Your task to perform on an android device: Search for "razer blackwidow" on newegg, select the first entry, add it to the cart, then select checkout. Image 0: 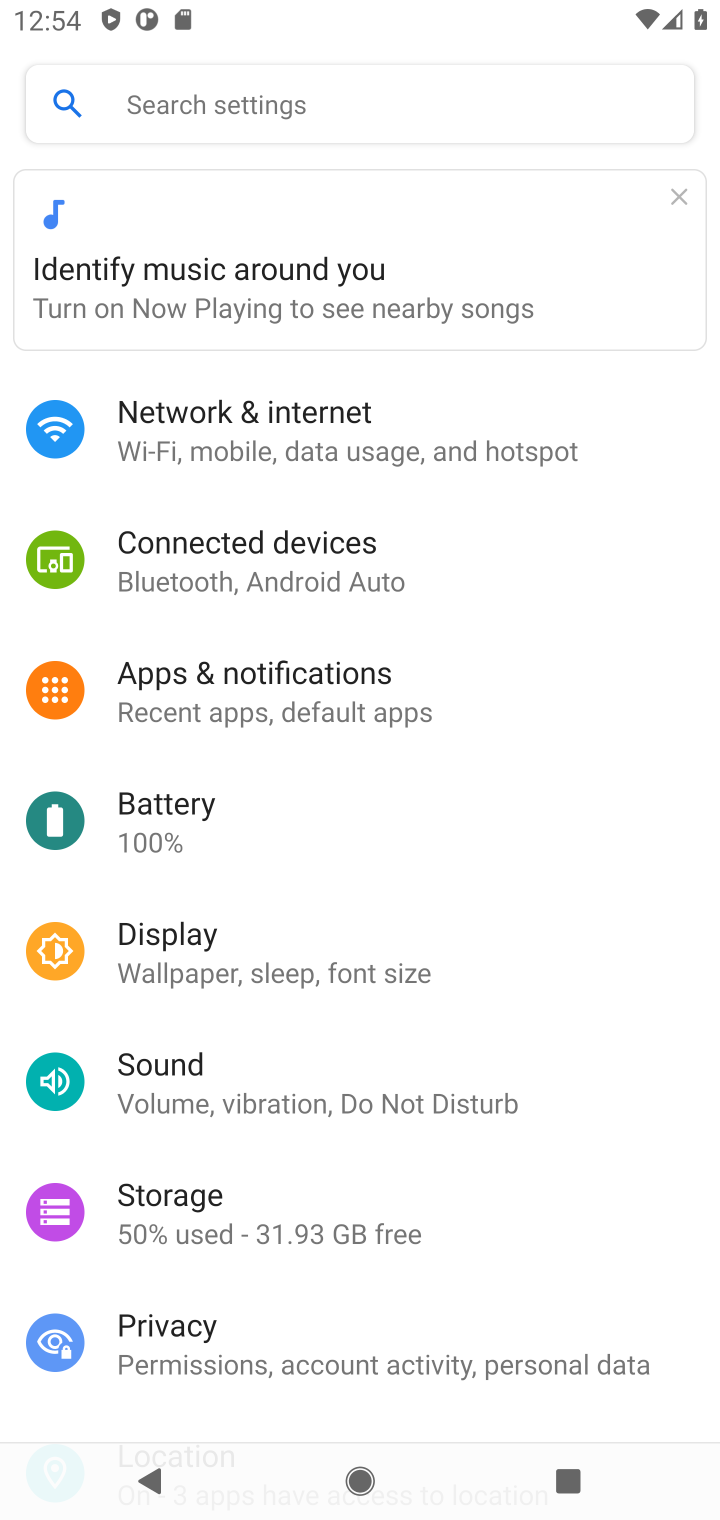
Step 0: press home button
Your task to perform on an android device: Search for "razer blackwidow" on newegg, select the first entry, add it to the cart, then select checkout. Image 1: 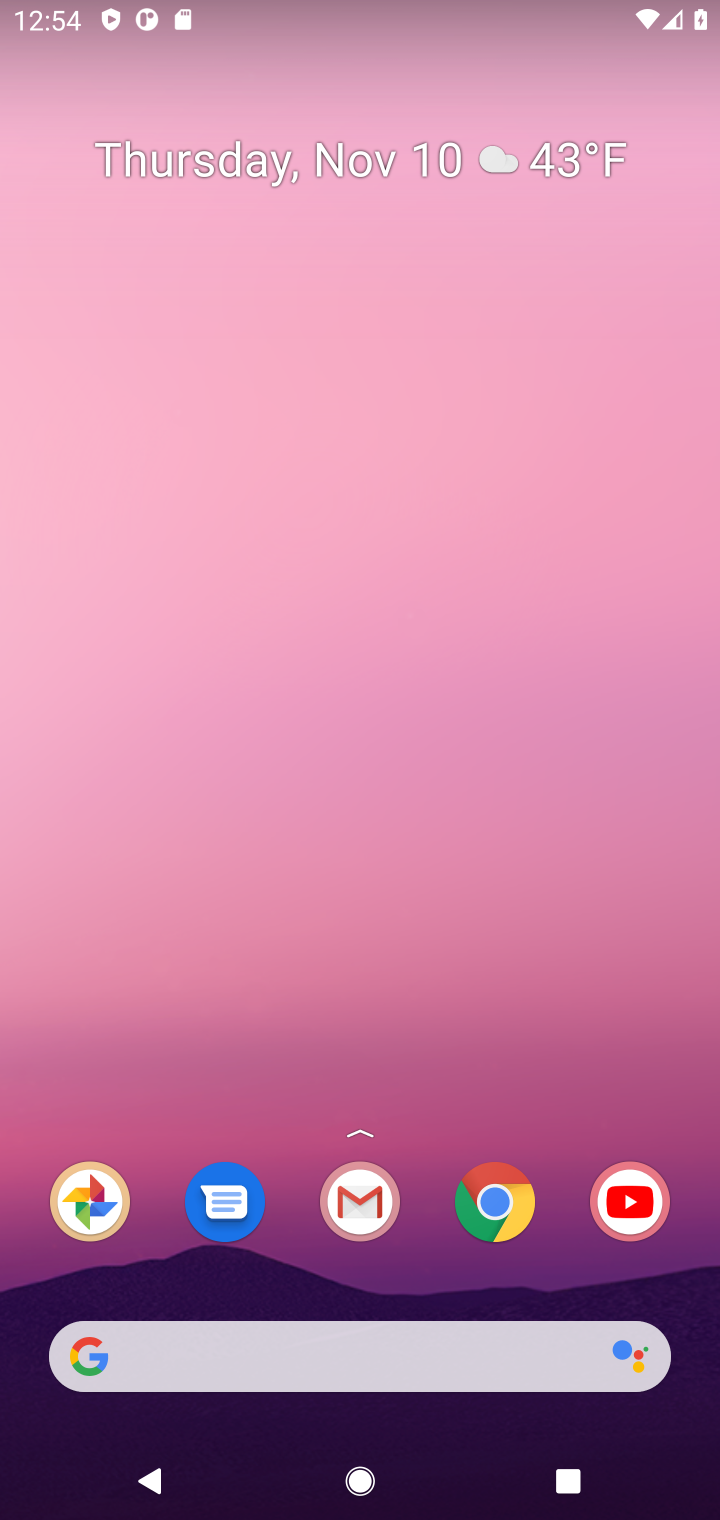
Step 1: click (483, 1220)
Your task to perform on an android device: Search for "razer blackwidow" on newegg, select the first entry, add it to the cart, then select checkout. Image 2: 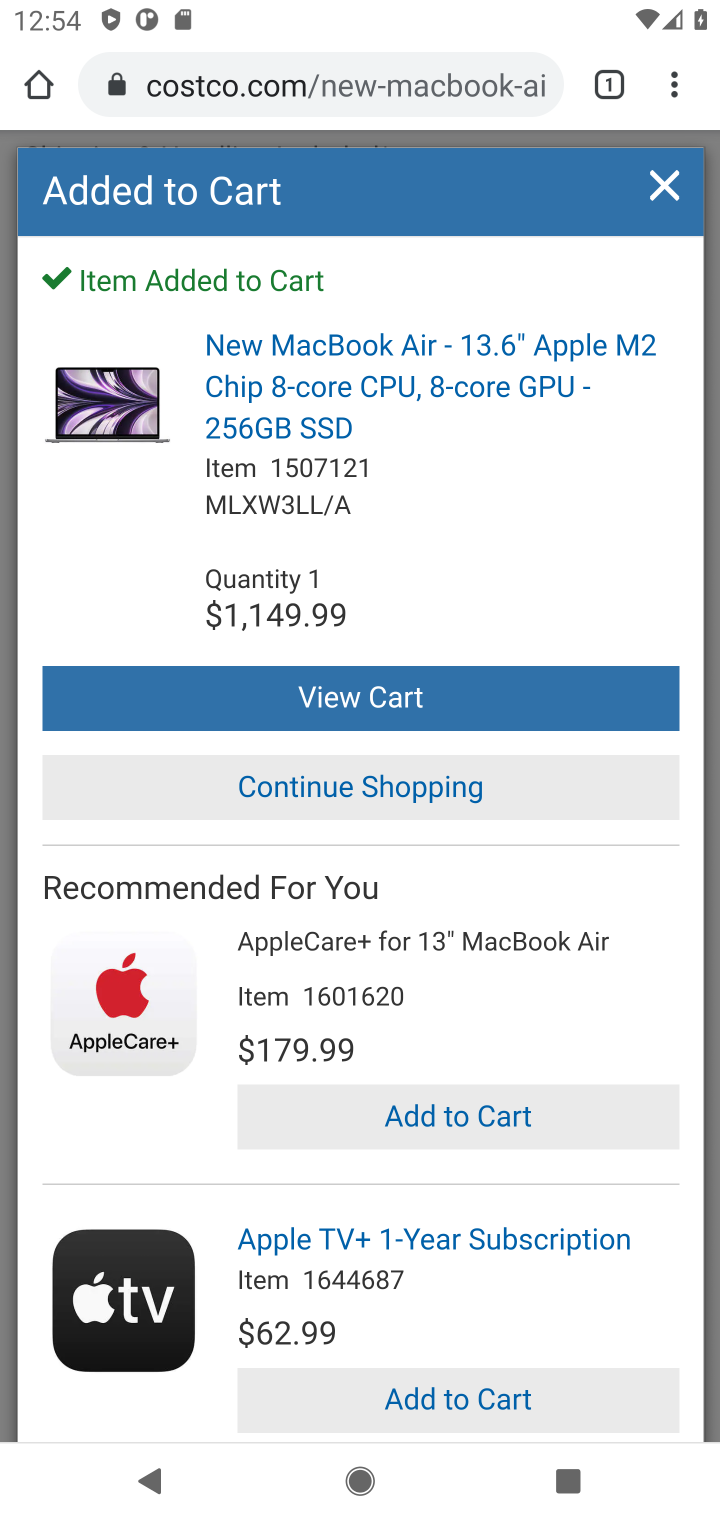
Step 2: click (347, 72)
Your task to perform on an android device: Search for "razer blackwidow" on newegg, select the first entry, add it to the cart, then select checkout. Image 3: 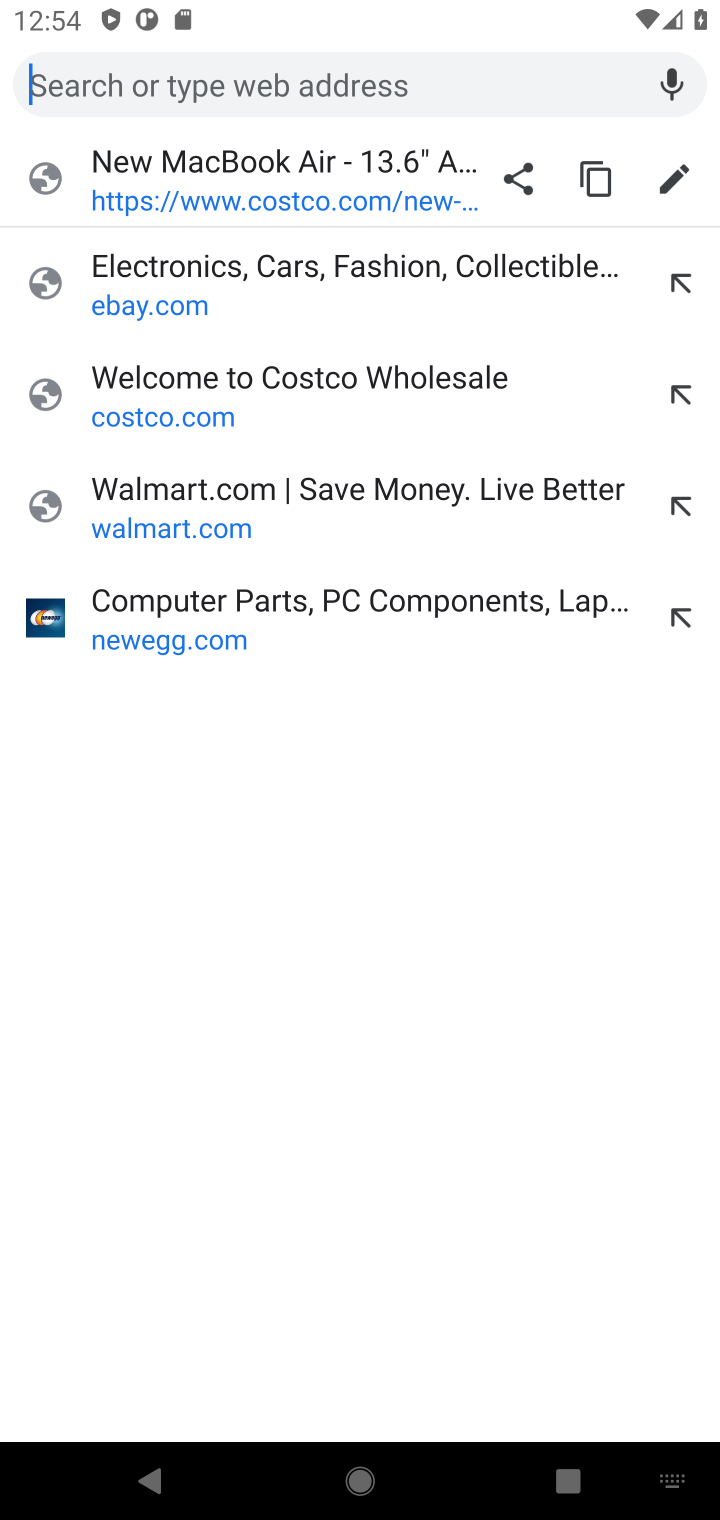
Step 3: click (408, 590)
Your task to perform on an android device: Search for "razer blackwidow" on newegg, select the first entry, add it to the cart, then select checkout. Image 4: 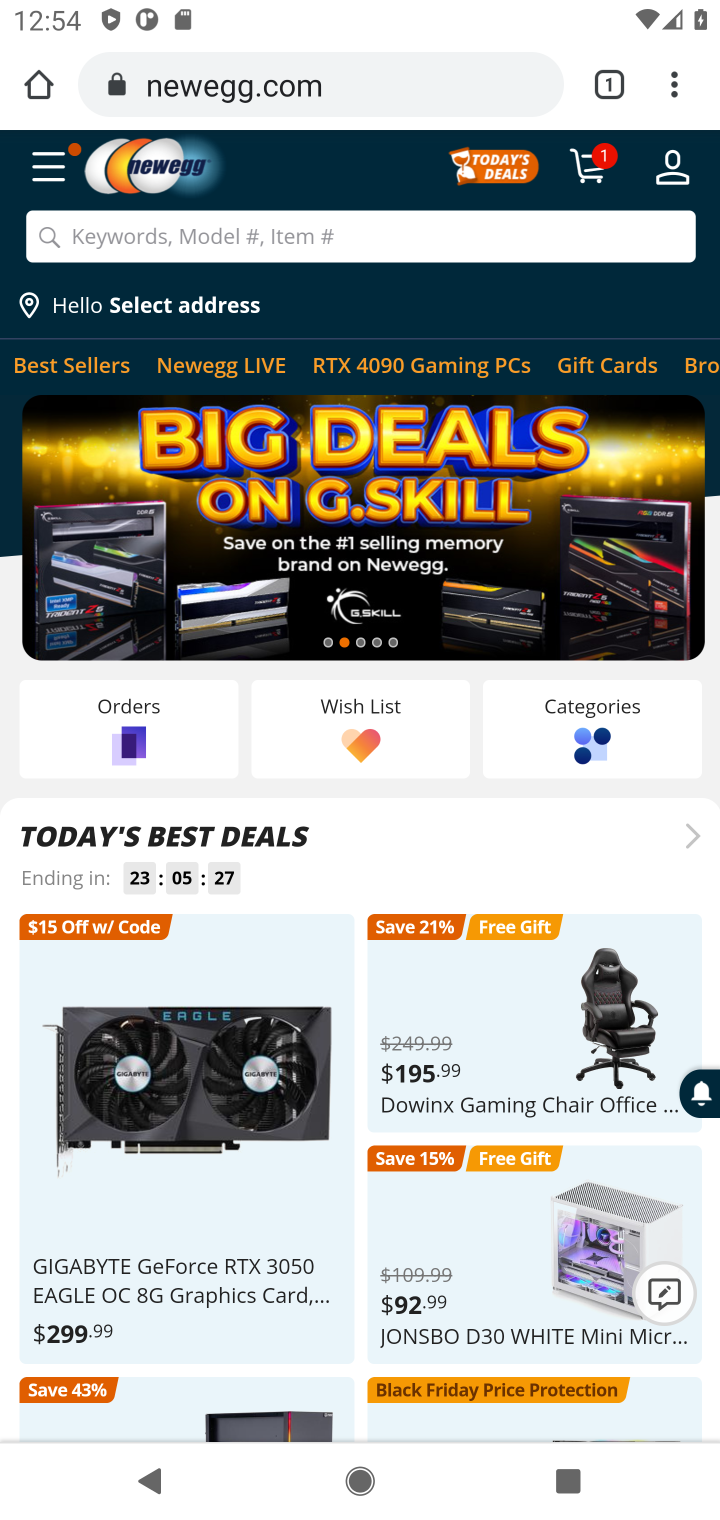
Step 4: click (559, 226)
Your task to perform on an android device: Search for "razer blackwidow" on newegg, select the first entry, add it to the cart, then select checkout. Image 5: 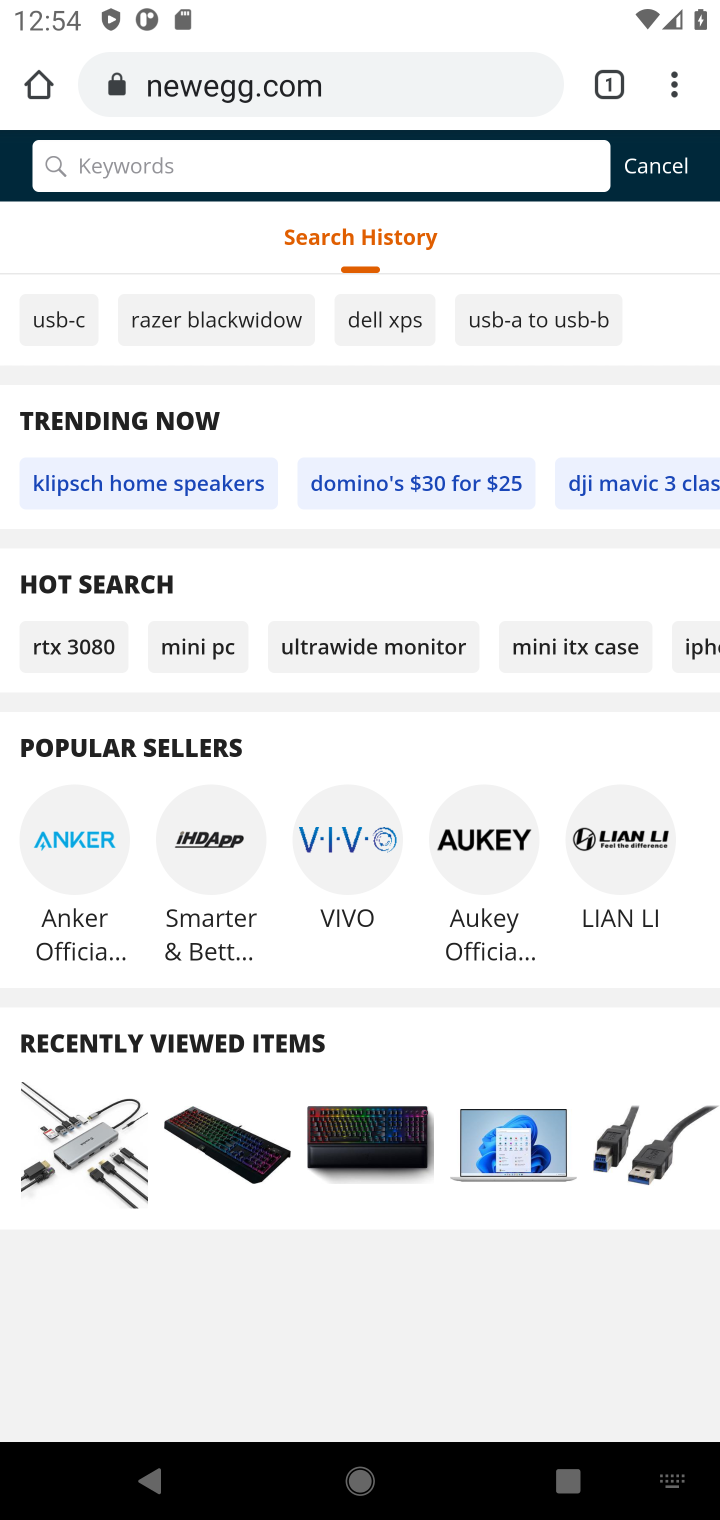
Step 5: type "razer blackwidow"
Your task to perform on an android device: Search for "razer blackwidow" on newegg, select the first entry, add it to the cart, then select checkout. Image 6: 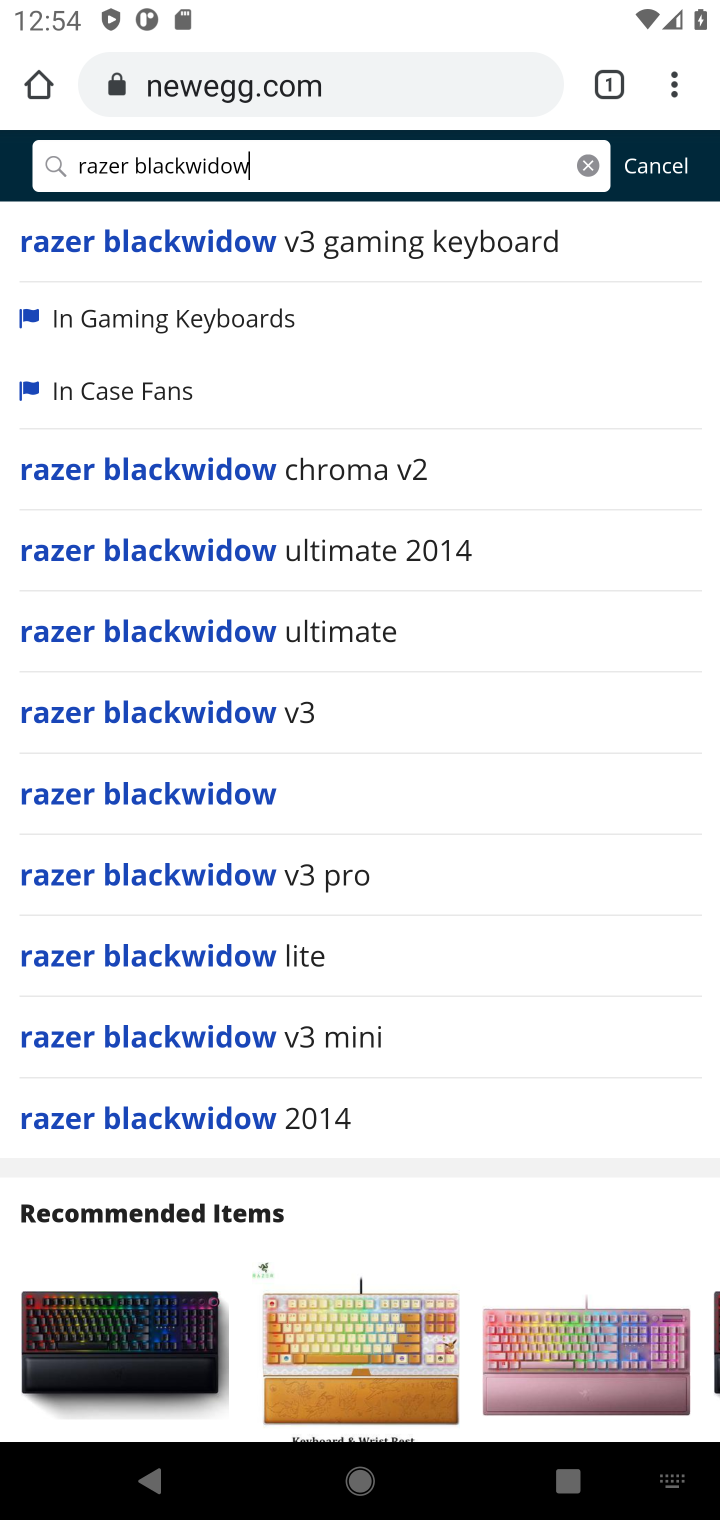
Step 6: click (255, 793)
Your task to perform on an android device: Search for "razer blackwidow" on newegg, select the first entry, add it to the cart, then select checkout. Image 7: 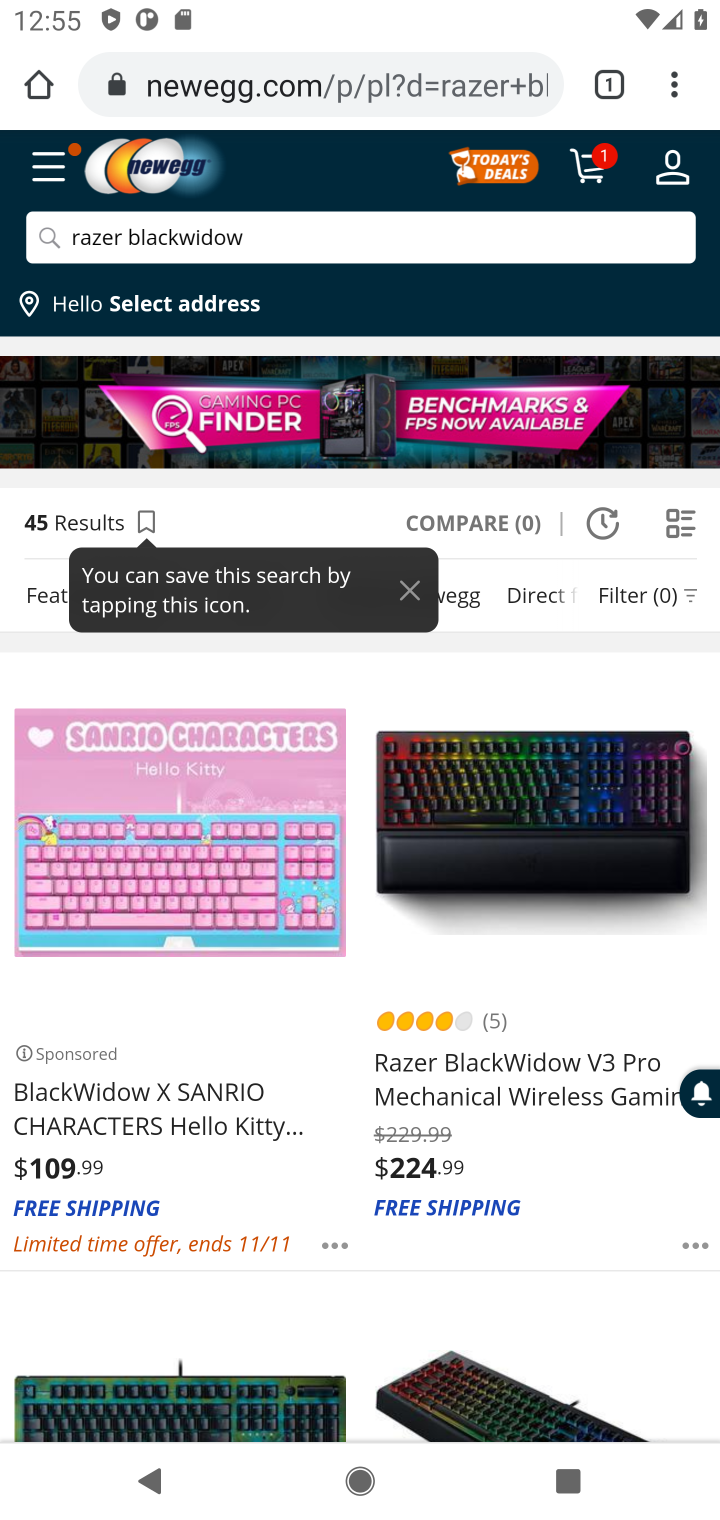
Step 7: click (603, 813)
Your task to perform on an android device: Search for "razer blackwidow" on newegg, select the first entry, add it to the cart, then select checkout. Image 8: 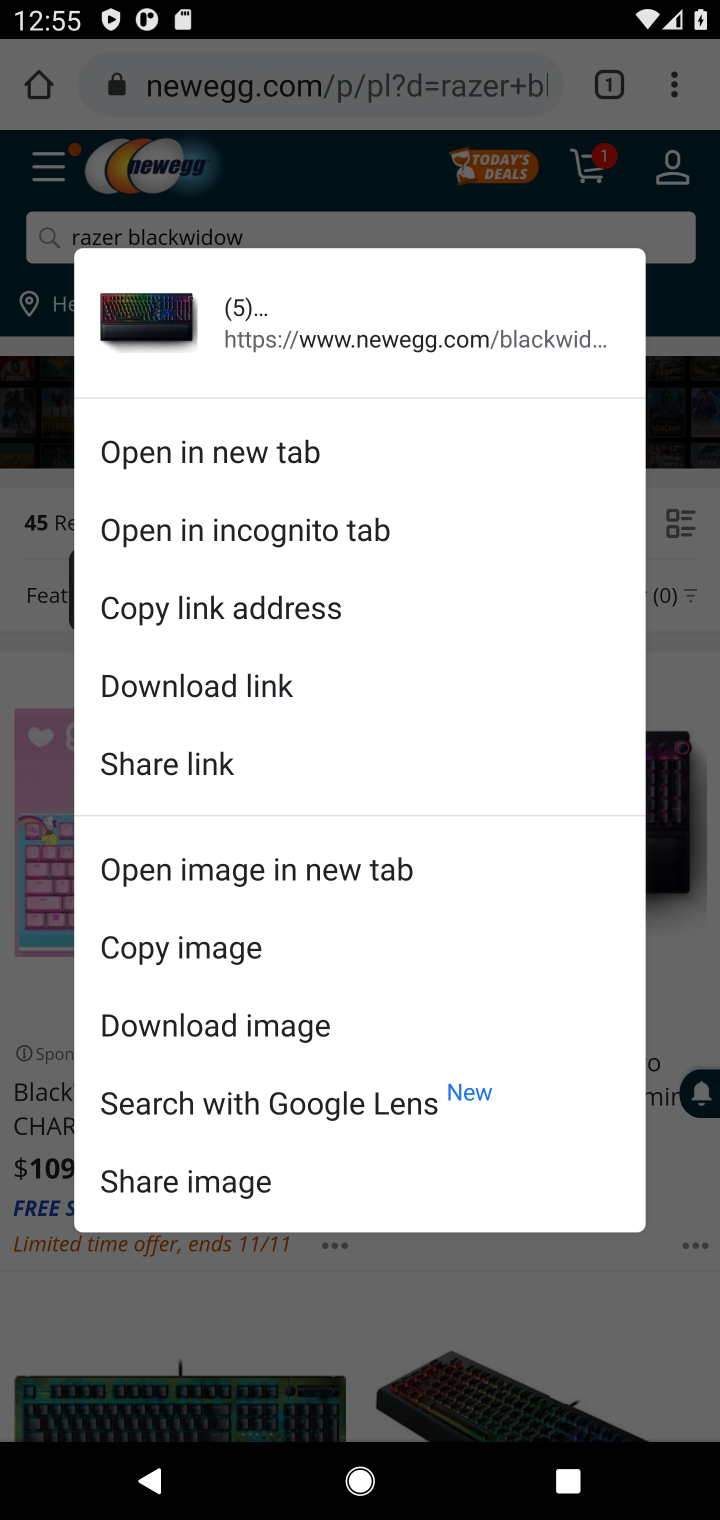
Step 8: click (699, 697)
Your task to perform on an android device: Search for "razer blackwidow" on newegg, select the first entry, add it to the cart, then select checkout. Image 9: 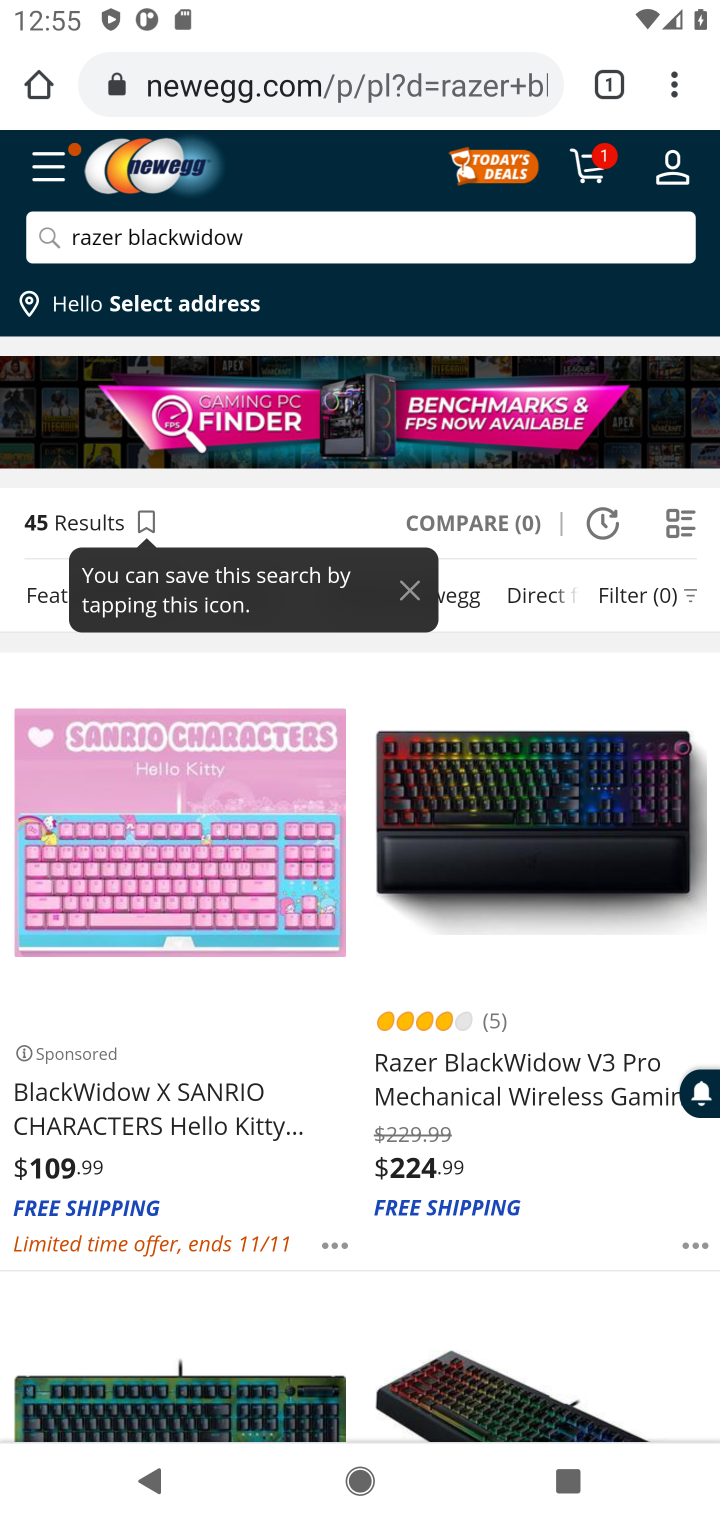
Step 9: click (578, 822)
Your task to perform on an android device: Search for "razer blackwidow" on newegg, select the first entry, add it to the cart, then select checkout. Image 10: 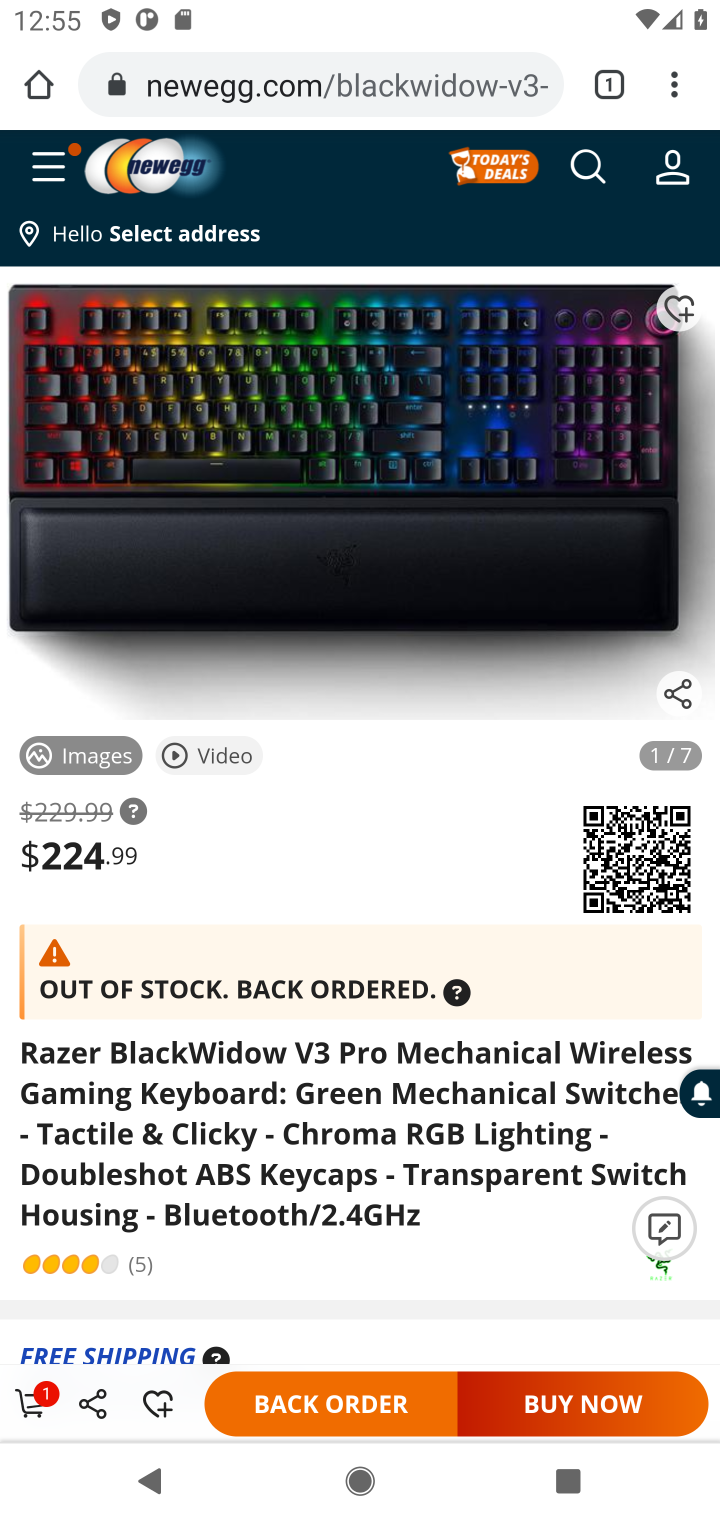
Step 10: click (359, 1405)
Your task to perform on an android device: Search for "razer blackwidow" on newegg, select the first entry, add it to the cart, then select checkout. Image 11: 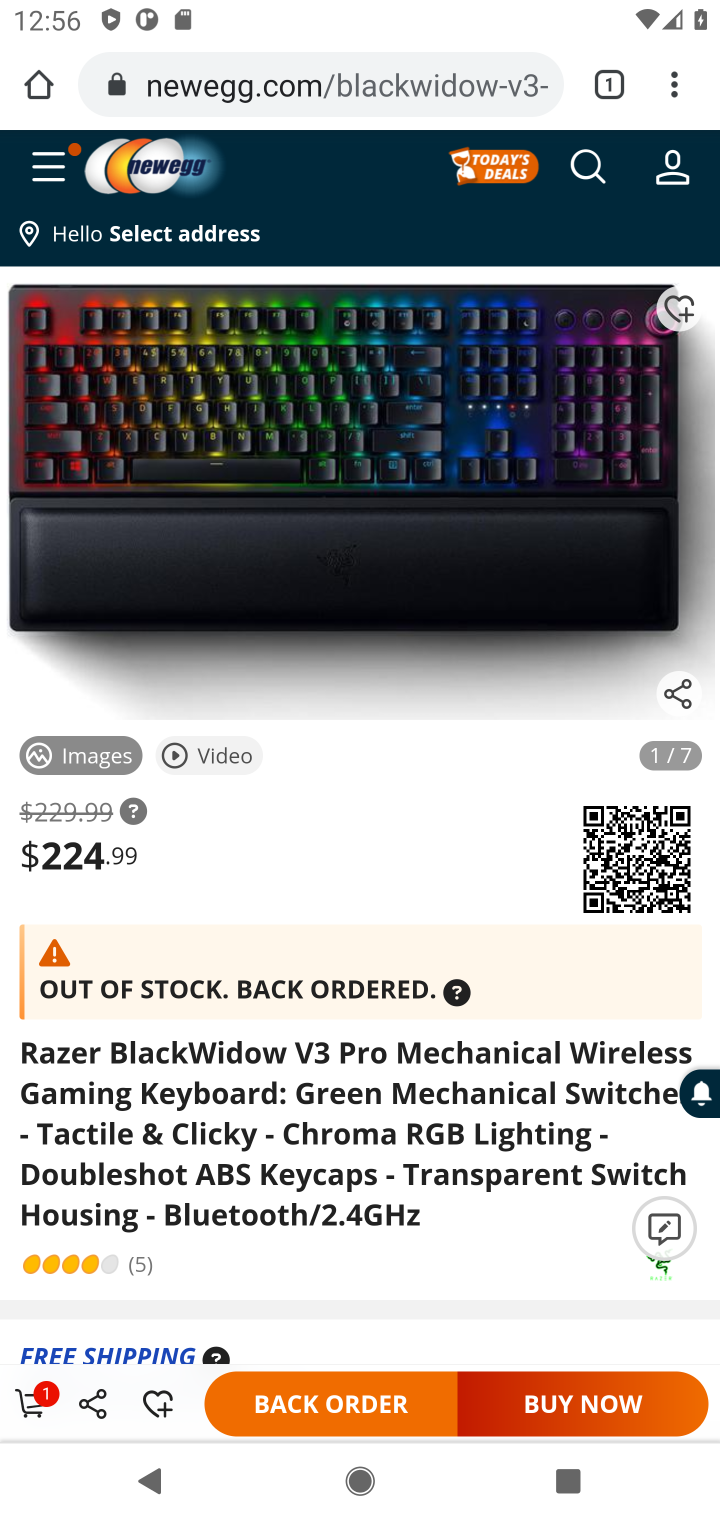
Step 11: drag from (450, 1048) to (470, 641)
Your task to perform on an android device: Search for "razer blackwidow" on newegg, select the first entry, add it to the cart, then select checkout. Image 12: 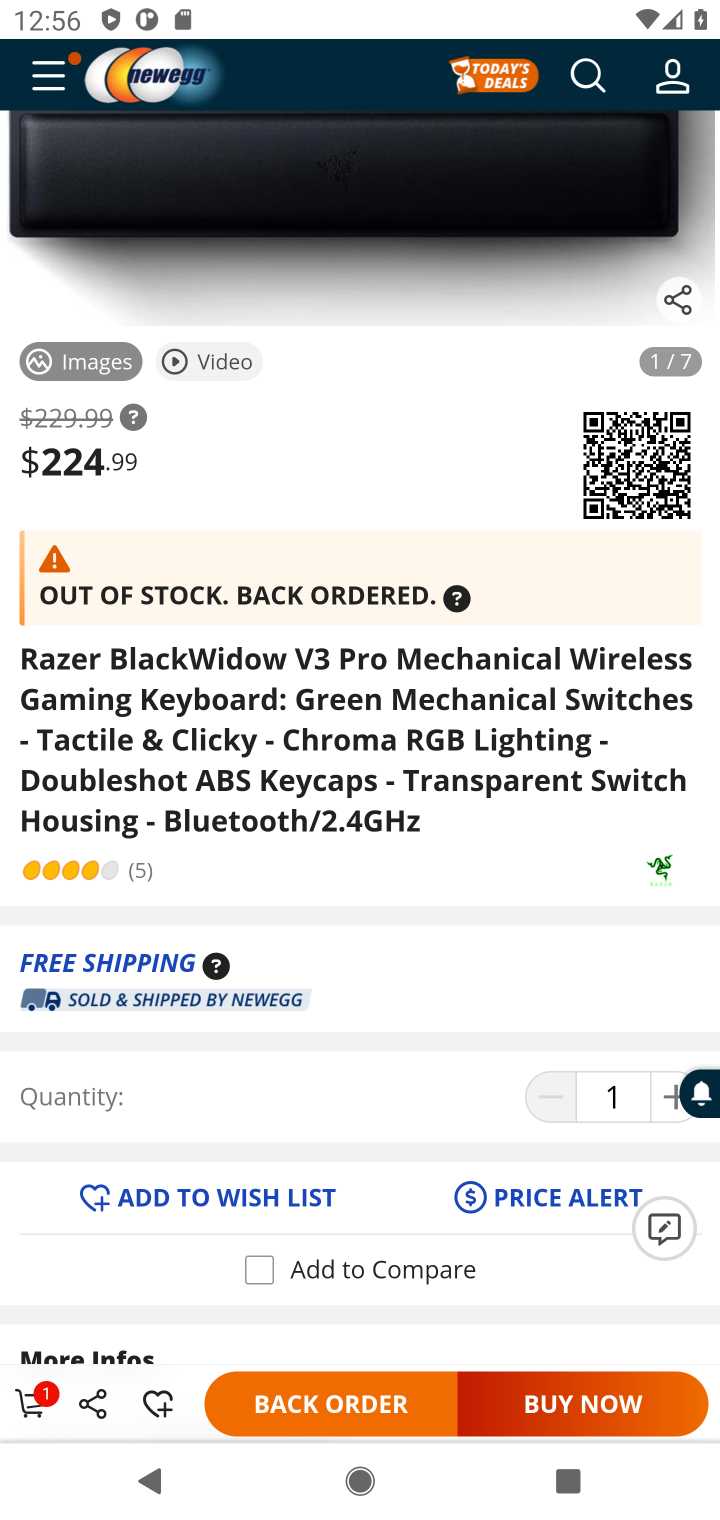
Step 12: click (26, 1409)
Your task to perform on an android device: Search for "razer blackwidow" on newegg, select the first entry, add it to the cart, then select checkout. Image 13: 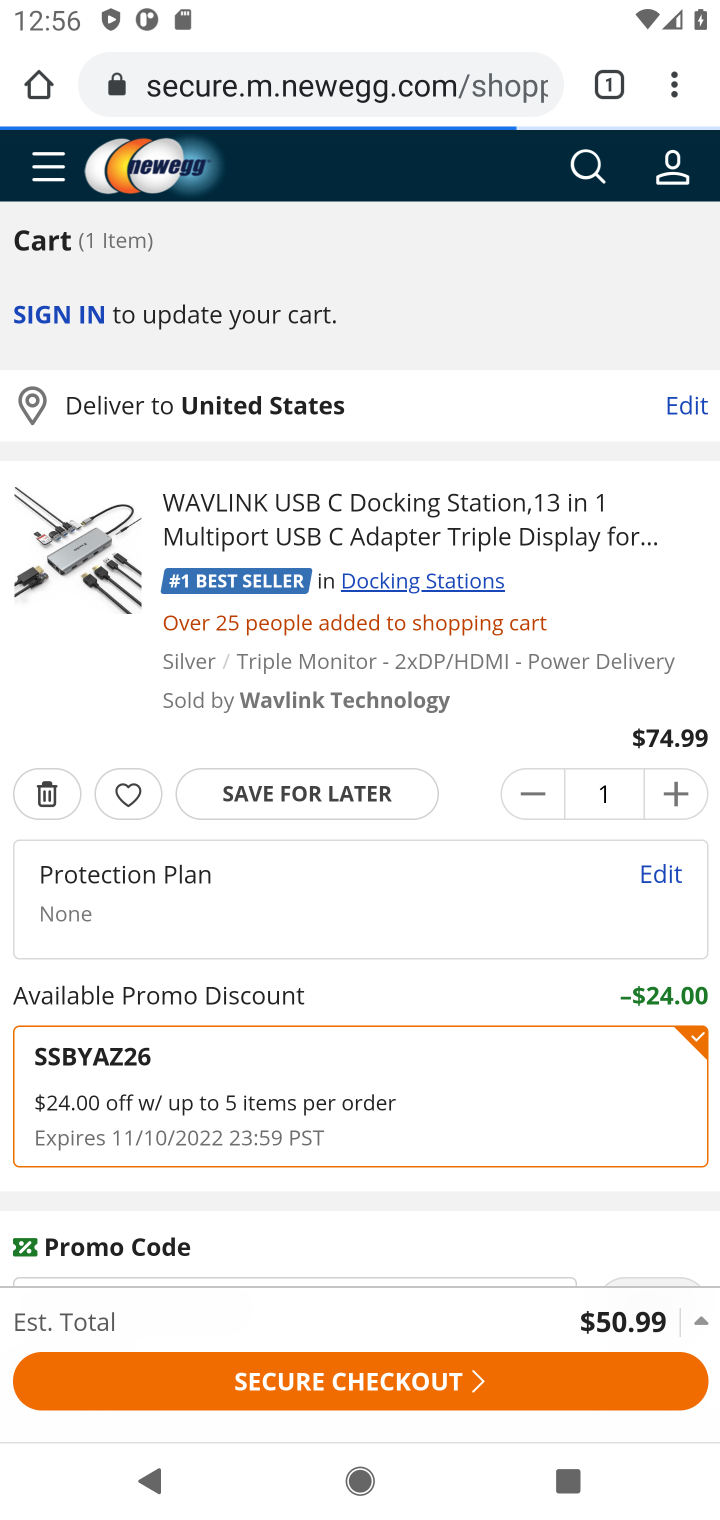
Step 13: press back button
Your task to perform on an android device: Search for "razer blackwidow" on newegg, select the first entry, add it to the cart, then select checkout. Image 14: 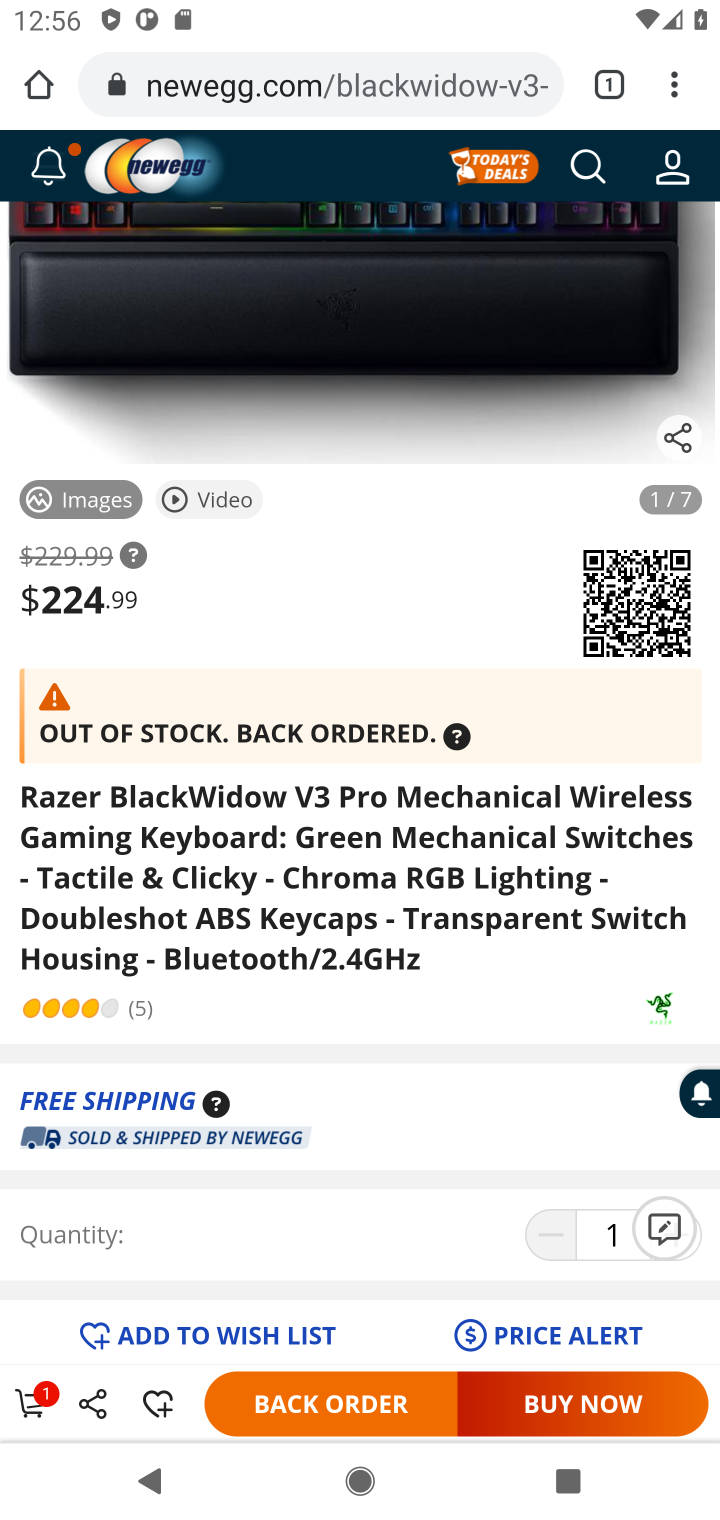
Step 14: drag from (423, 1051) to (477, 593)
Your task to perform on an android device: Search for "razer blackwidow" on newegg, select the first entry, add it to the cart, then select checkout. Image 15: 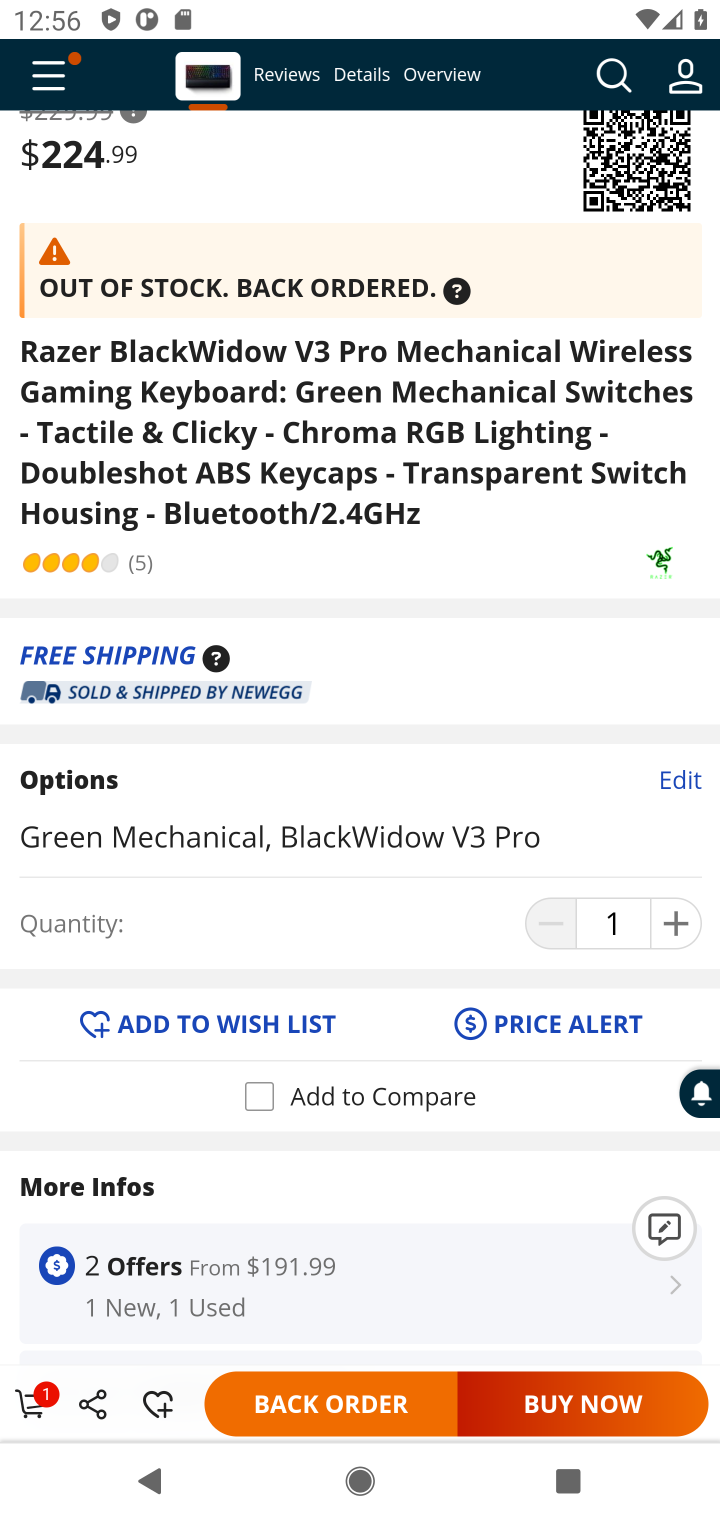
Step 15: press back button
Your task to perform on an android device: Search for "razer blackwidow" on newegg, select the first entry, add it to the cart, then select checkout. Image 16: 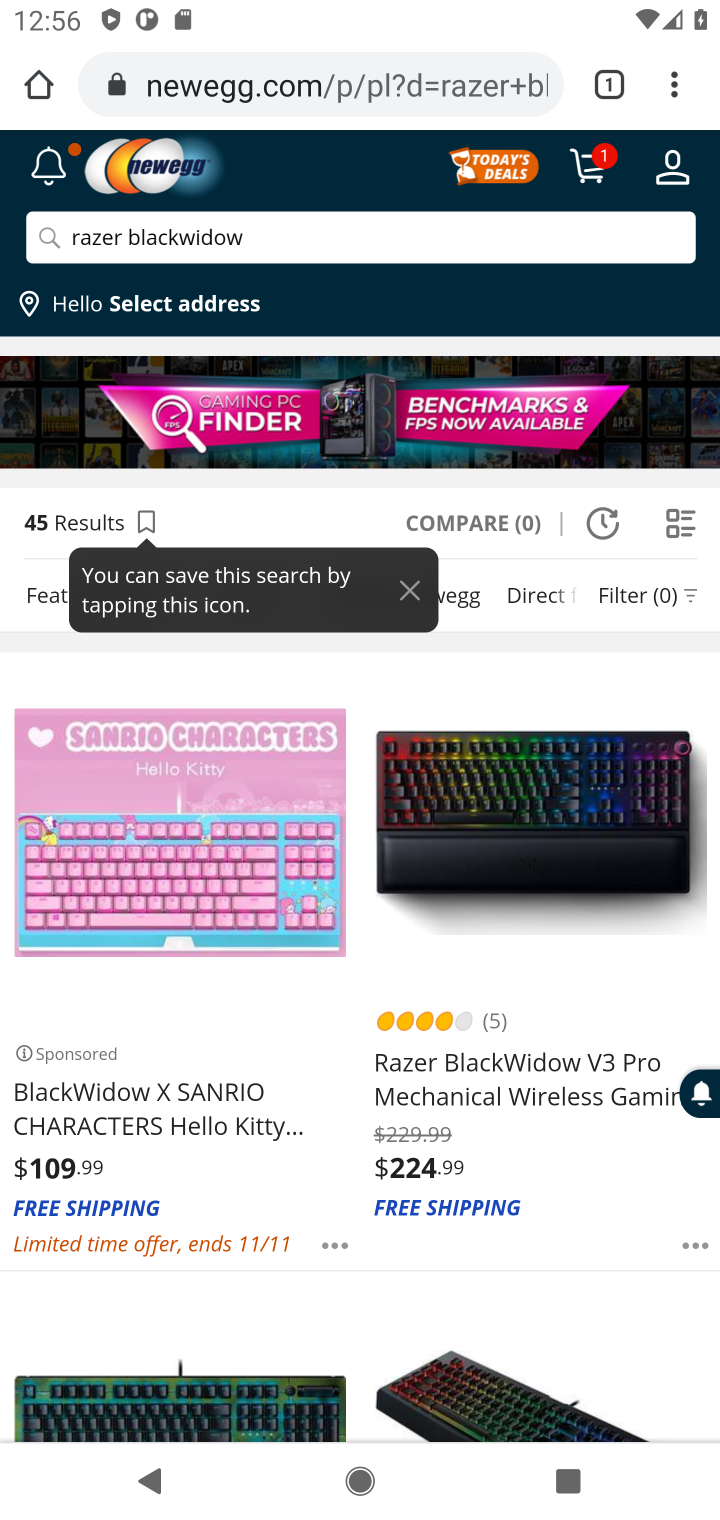
Step 16: drag from (515, 885) to (546, 613)
Your task to perform on an android device: Search for "razer blackwidow" on newegg, select the first entry, add it to the cart, then select checkout. Image 17: 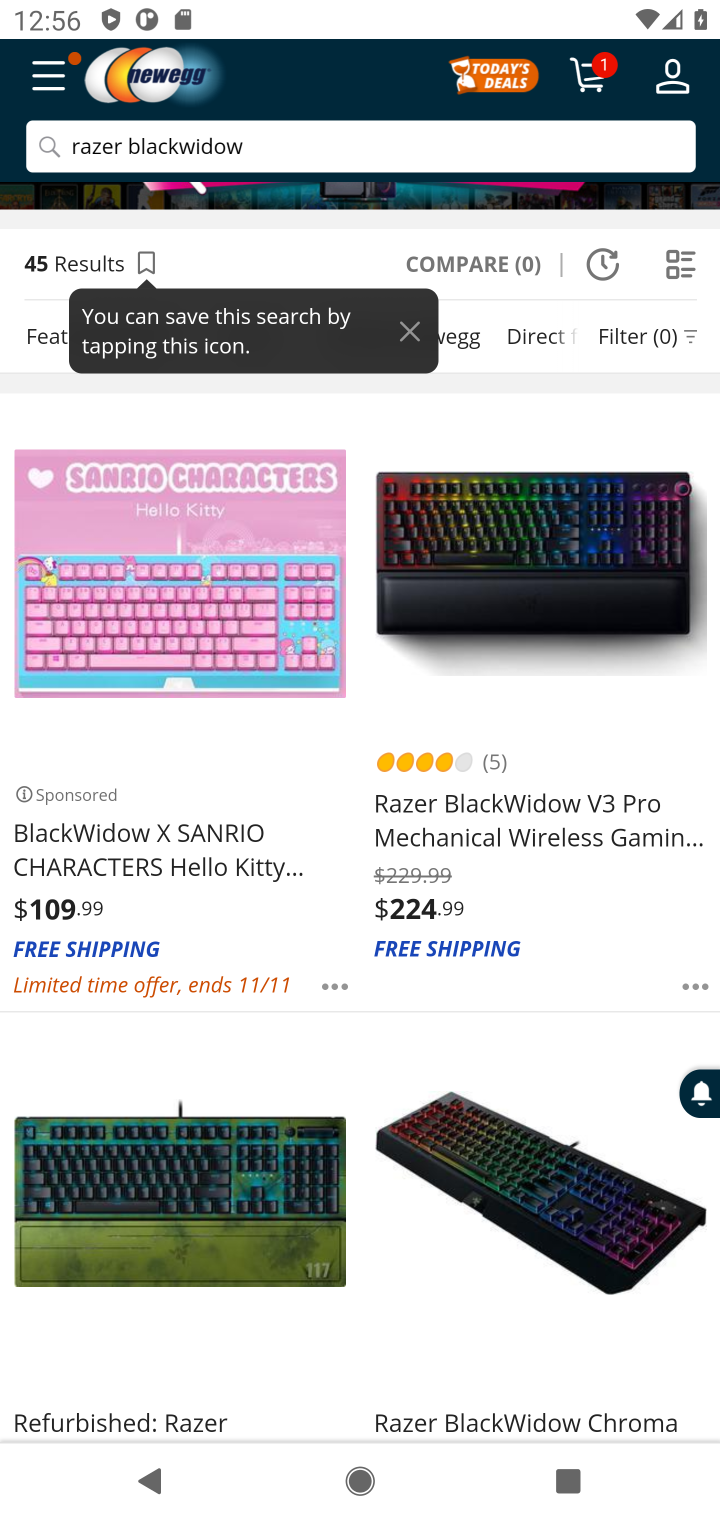
Step 17: click (515, 1144)
Your task to perform on an android device: Search for "razer blackwidow" on newegg, select the first entry, add it to the cart, then select checkout. Image 18: 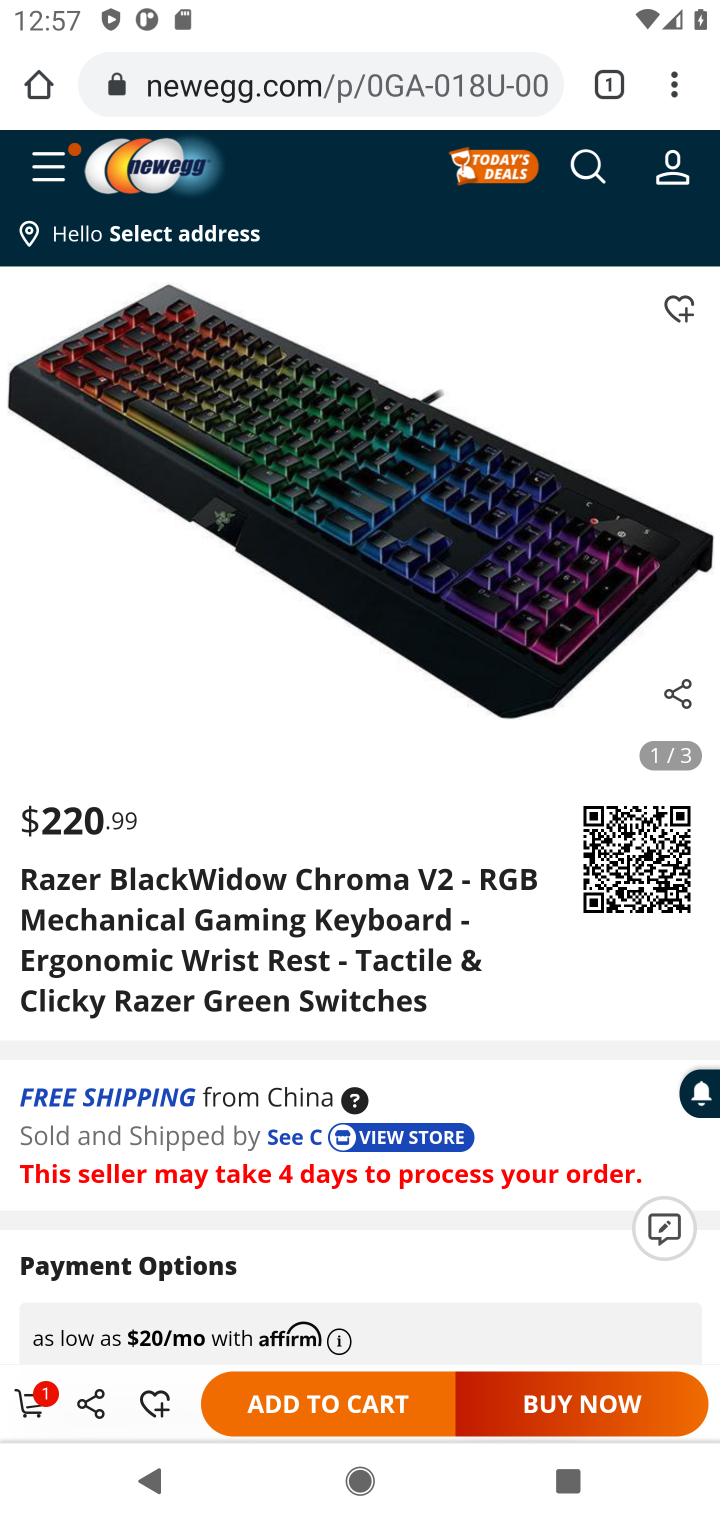
Step 18: click (347, 1413)
Your task to perform on an android device: Search for "razer blackwidow" on newegg, select the first entry, add it to the cart, then select checkout. Image 19: 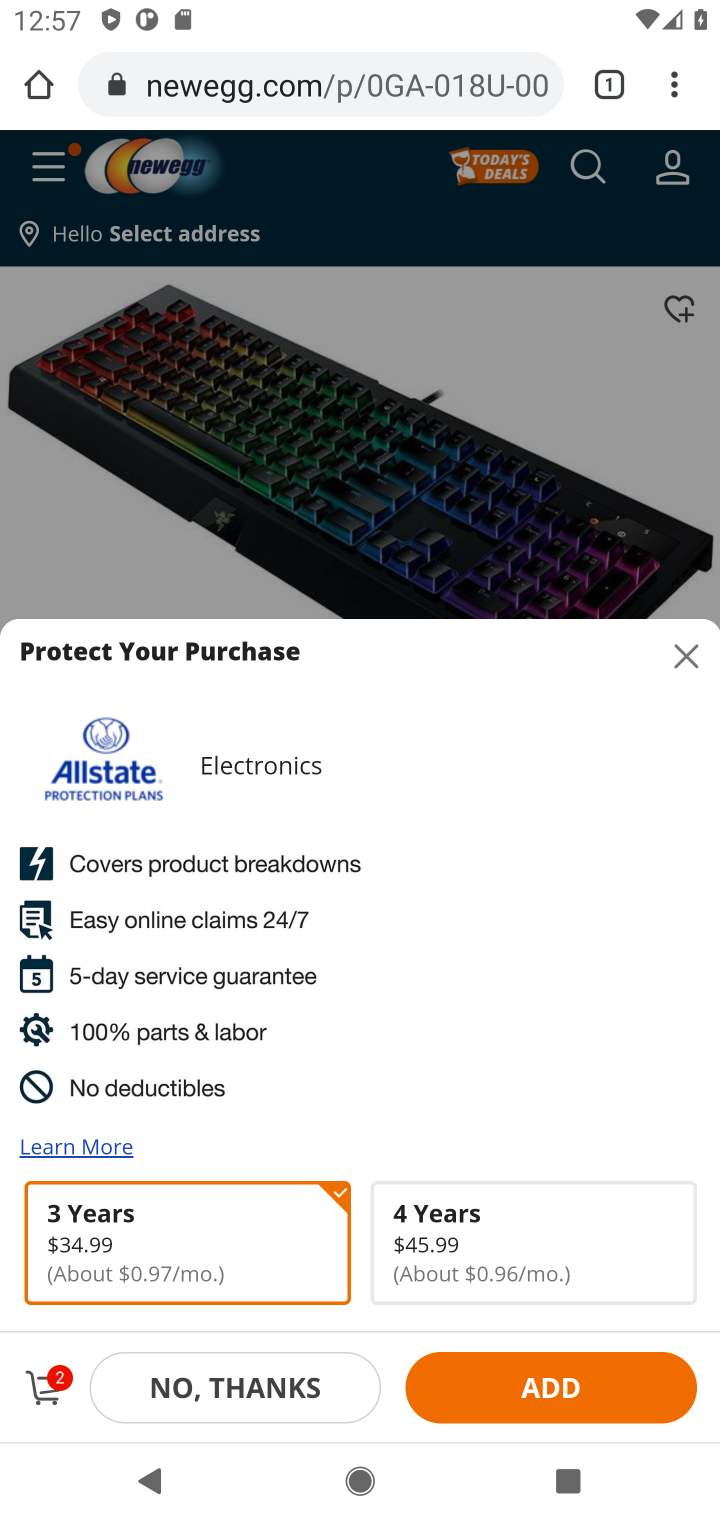
Step 19: click (697, 652)
Your task to perform on an android device: Search for "razer blackwidow" on newegg, select the first entry, add it to the cart, then select checkout. Image 20: 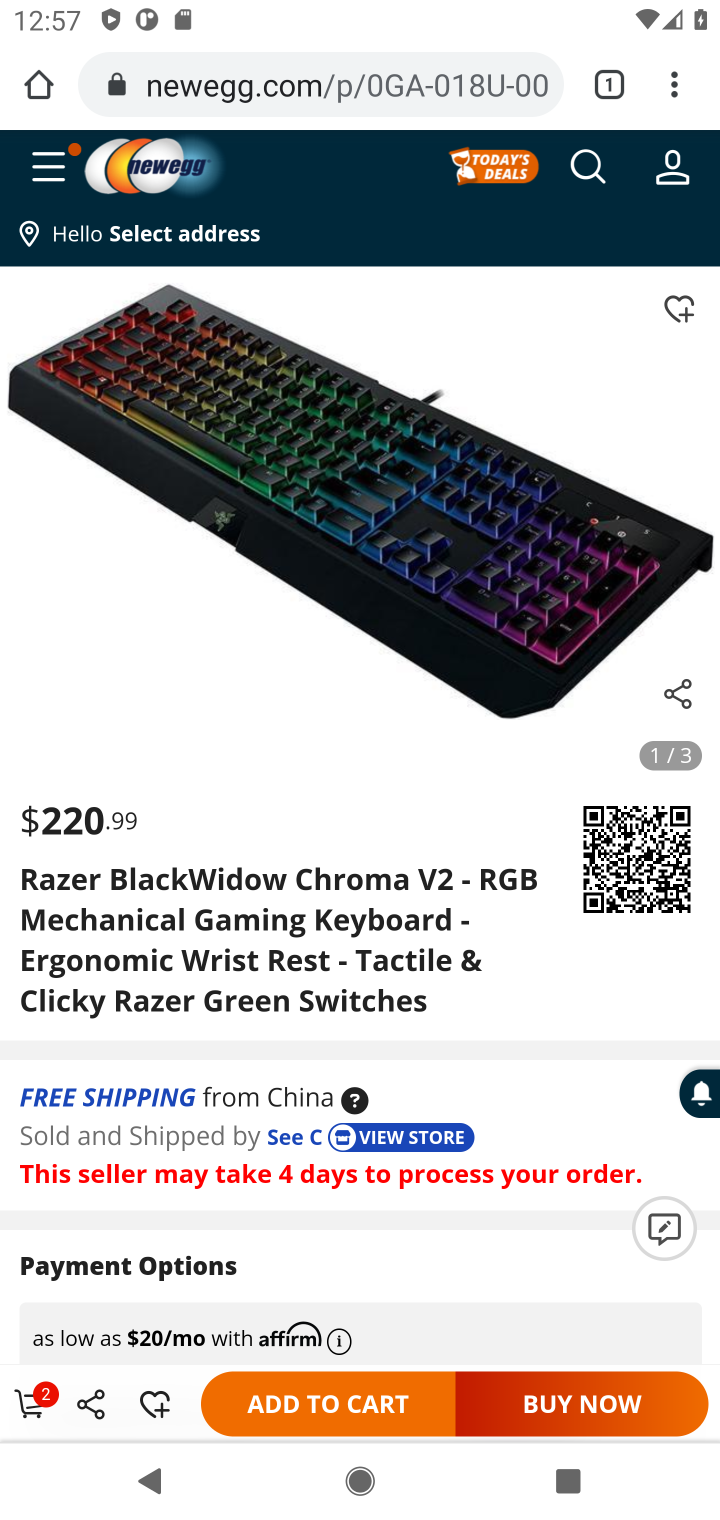
Step 20: click (27, 1407)
Your task to perform on an android device: Search for "razer blackwidow" on newegg, select the first entry, add it to the cart, then select checkout. Image 21: 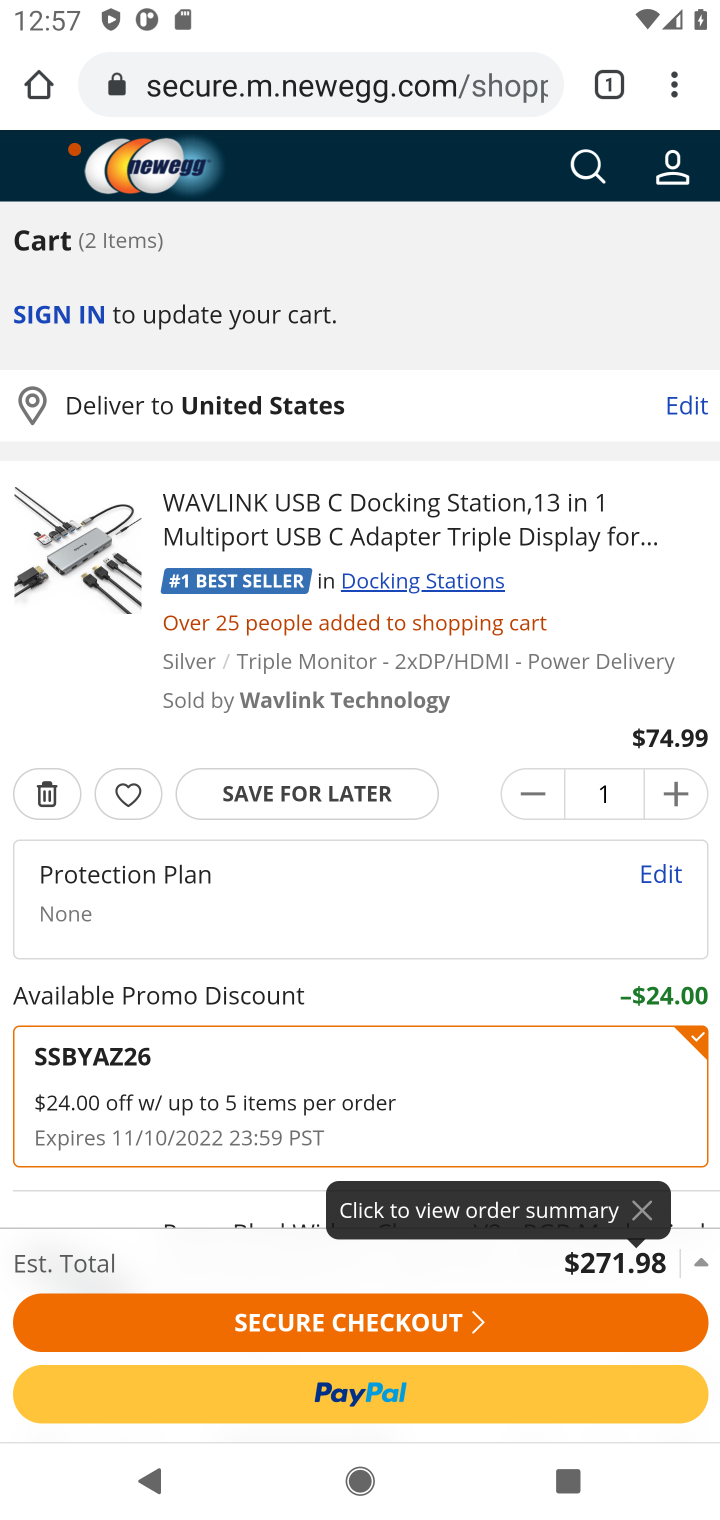
Step 21: click (405, 1318)
Your task to perform on an android device: Search for "razer blackwidow" on newegg, select the first entry, add it to the cart, then select checkout. Image 22: 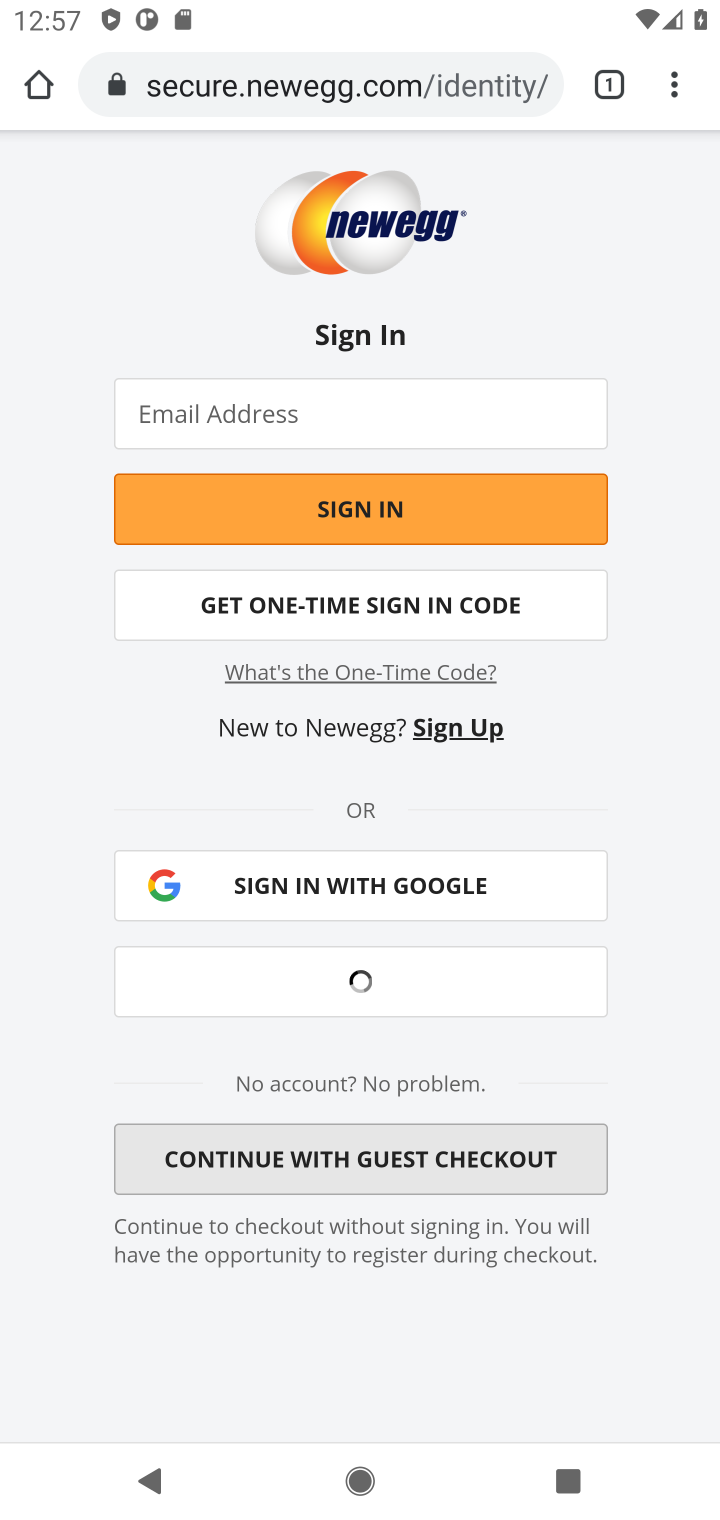
Step 22: task complete